Your task to perform on an android device: Open Chrome and go to settings Image 0: 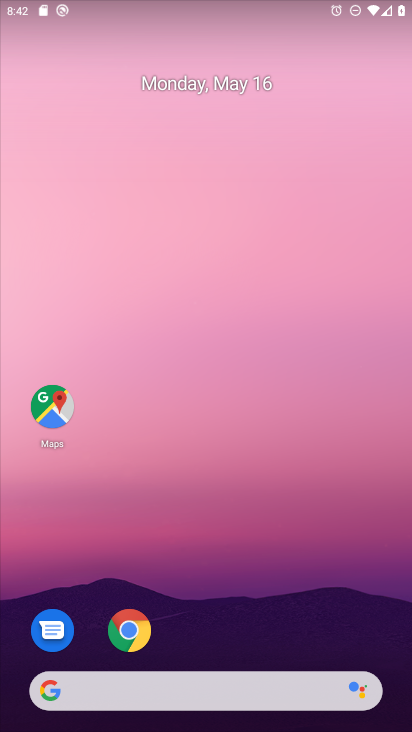
Step 0: click (126, 631)
Your task to perform on an android device: Open Chrome and go to settings Image 1: 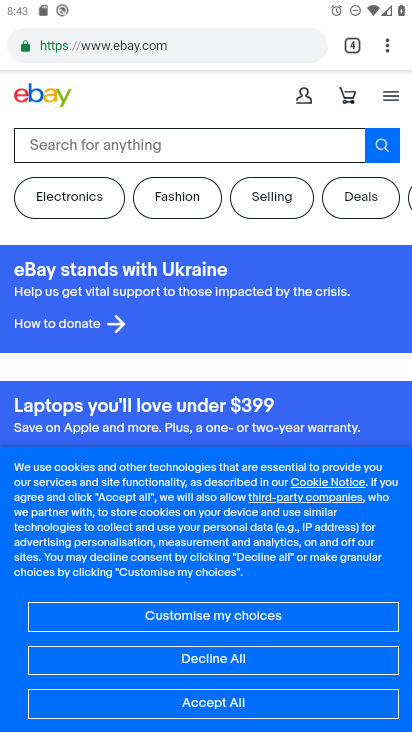
Step 1: click (385, 36)
Your task to perform on an android device: Open Chrome and go to settings Image 2: 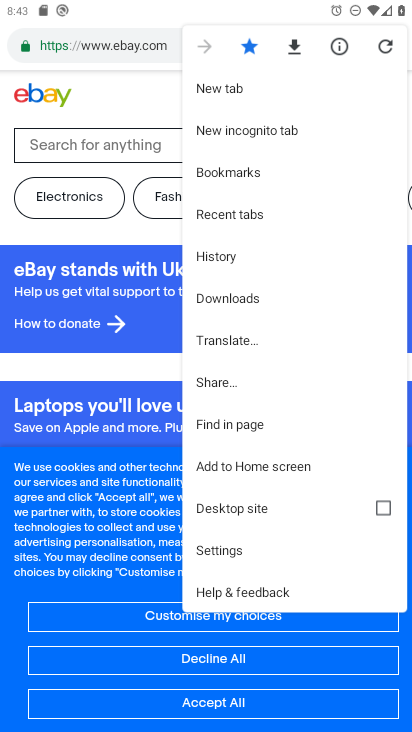
Step 2: click (249, 539)
Your task to perform on an android device: Open Chrome and go to settings Image 3: 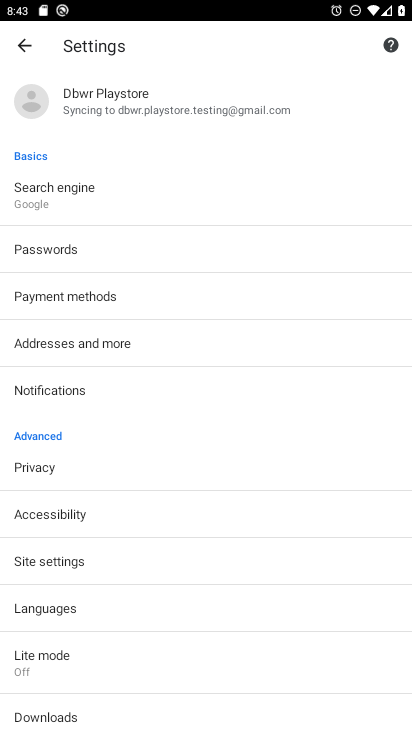
Step 3: task complete